Your task to perform on an android device: open a bookmark in the chrome app Image 0: 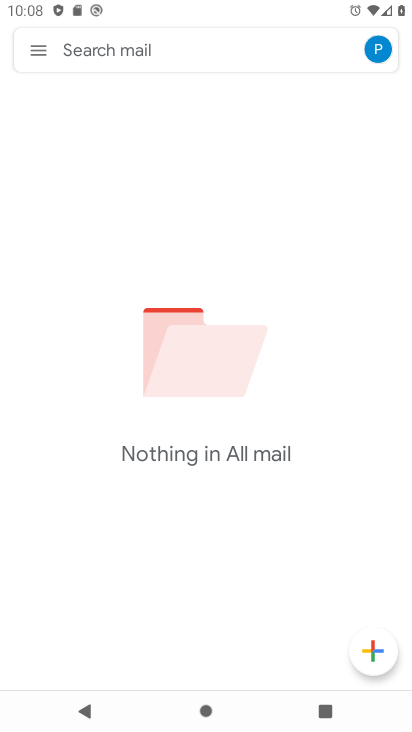
Step 0: press back button
Your task to perform on an android device: open a bookmark in the chrome app Image 1: 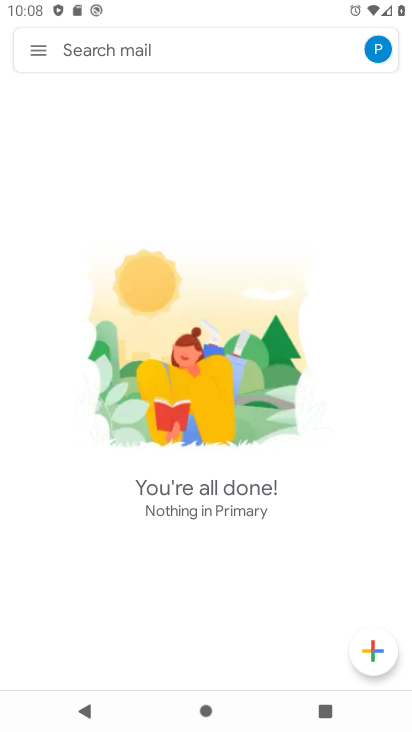
Step 1: press back button
Your task to perform on an android device: open a bookmark in the chrome app Image 2: 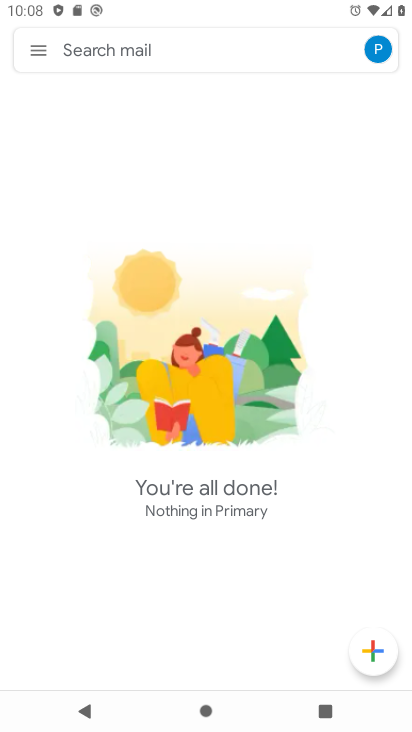
Step 2: press back button
Your task to perform on an android device: open a bookmark in the chrome app Image 3: 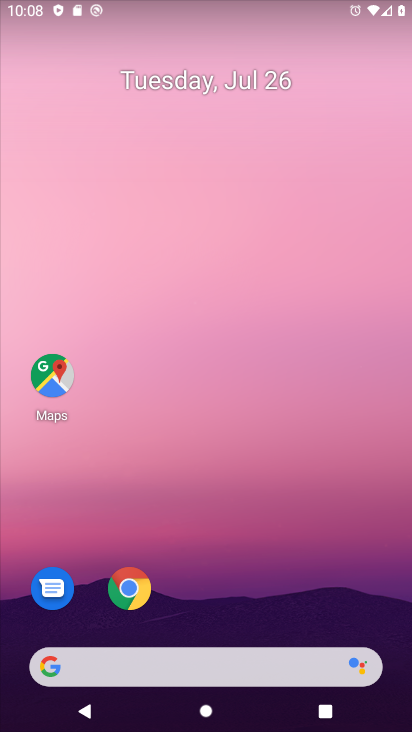
Step 3: click (128, 591)
Your task to perform on an android device: open a bookmark in the chrome app Image 4: 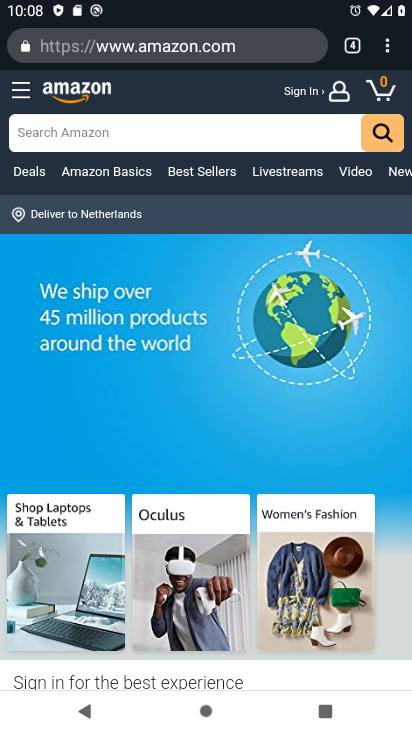
Step 4: drag from (389, 43) to (258, 170)
Your task to perform on an android device: open a bookmark in the chrome app Image 5: 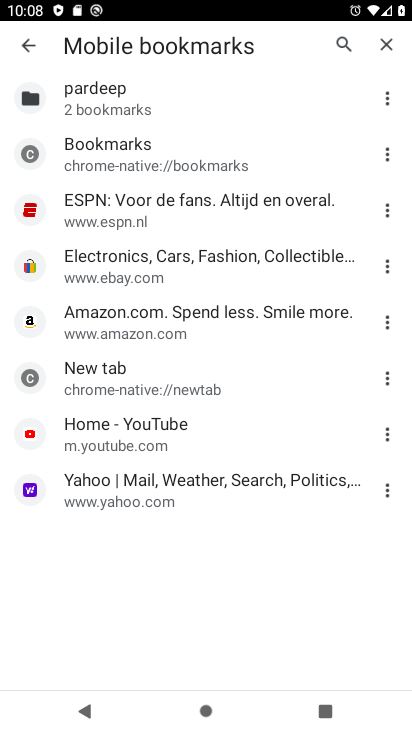
Step 5: click (188, 215)
Your task to perform on an android device: open a bookmark in the chrome app Image 6: 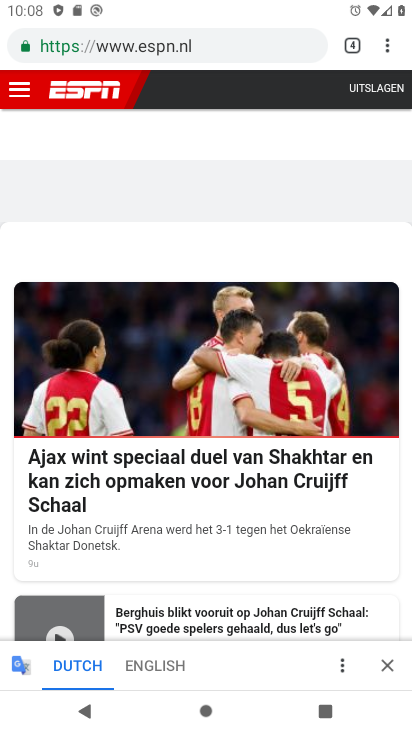
Step 6: task complete